Your task to perform on an android device: Open calendar and show me the third week of next month Image 0: 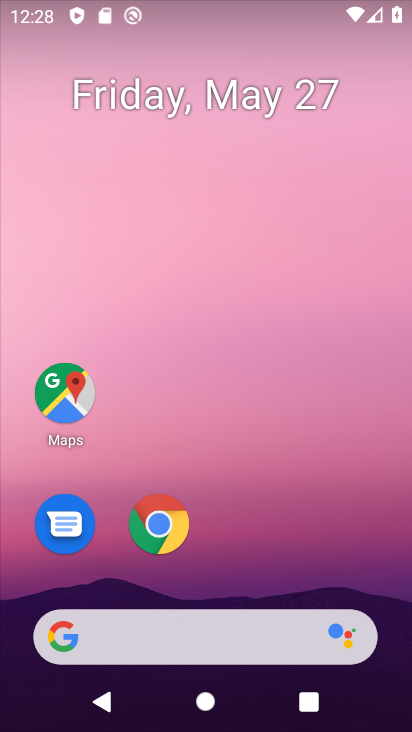
Step 0: drag from (310, 331) to (303, 26)
Your task to perform on an android device: Open calendar and show me the third week of next month Image 1: 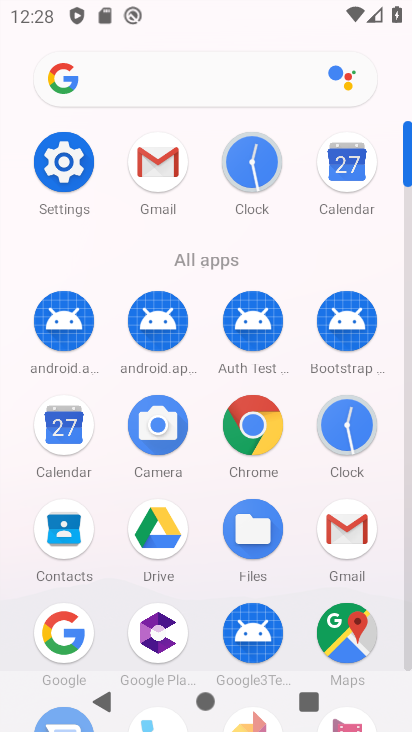
Step 1: click (353, 172)
Your task to perform on an android device: Open calendar and show me the third week of next month Image 2: 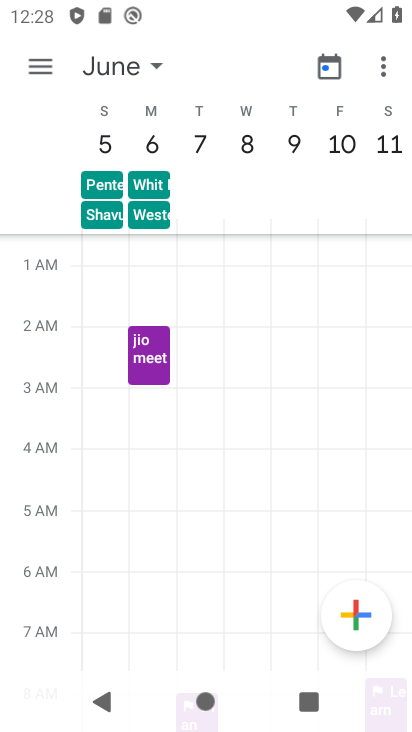
Step 2: task complete